Your task to perform on an android device: Search for razer blade on newegg, select the first entry, and add it to the cart. Image 0: 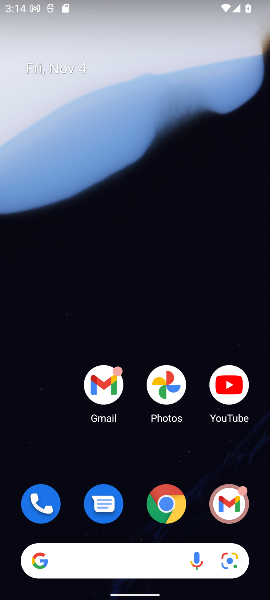
Step 0: click (171, 513)
Your task to perform on an android device: Search for razer blade on newegg, select the first entry, and add it to the cart. Image 1: 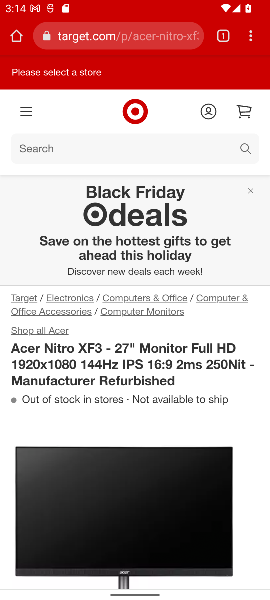
Step 1: click (106, 30)
Your task to perform on an android device: Search for razer blade on newegg, select the first entry, and add it to the cart. Image 2: 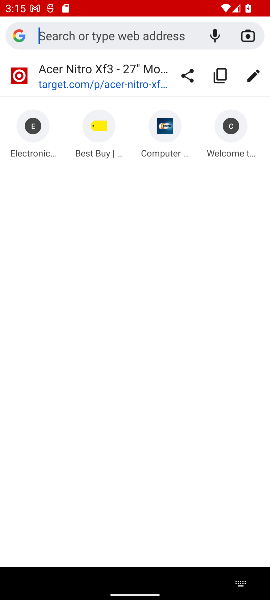
Step 2: type "newegg.com"
Your task to perform on an android device: Search for razer blade on newegg, select the first entry, and add it to the cart. Image 3: 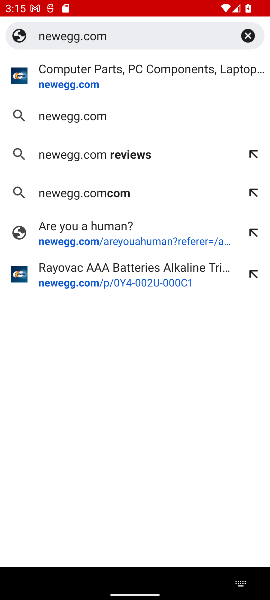
Step 3: click (84, 113)
Your task to perform on an android device: Search for razer blade on newegg, select the first entry, and add it to the cart. Image 4: 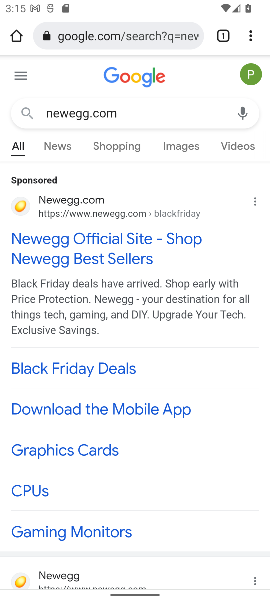
Step 4: drag from (125, 511) to (126, 244)
Your task to perform on an android device: Search for razer blade on newegg, select the first entry, and add it to the cart. Image 5: 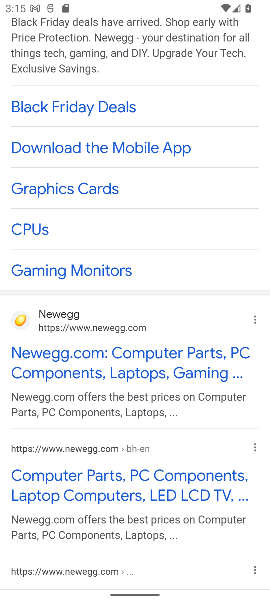
Step 5: click (40, 331)
Your task to perform on an android device: Search for razer blade on newegg, select the first entry, and add it to the cart. Image 6: 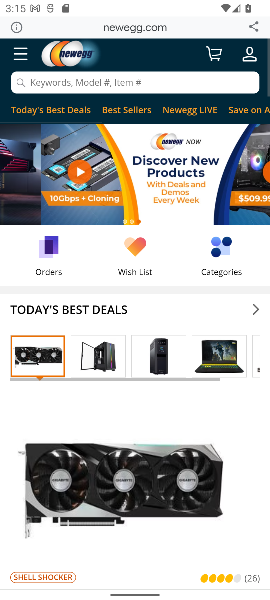
Step 6: click (75, 86)
Your task to perform on an android device: Search for razer blade on newegg, select the first entry, and add it to the cart. Image 7: 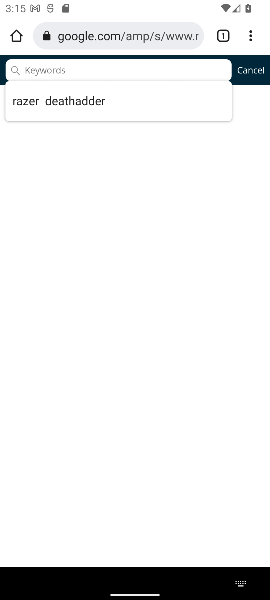
Step 7: type " razer blade"
Your task to perform on an android device: Search for razer blade on newegg, select the first entry, and add it to the cart. Image 8: 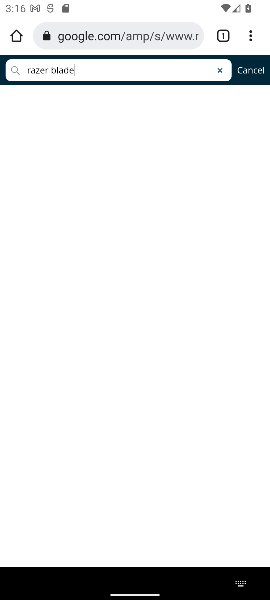
Step 8: click (15, 69)
Your task to perform on an android device: Search for razer blade on newegg, select the first entry, and add it to the cart. Image 9: 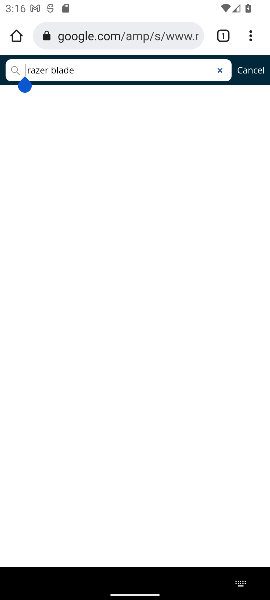
Step 9: task complete